Your task to perform on an android device: Open calendar and show me the first week of next month Image 0: 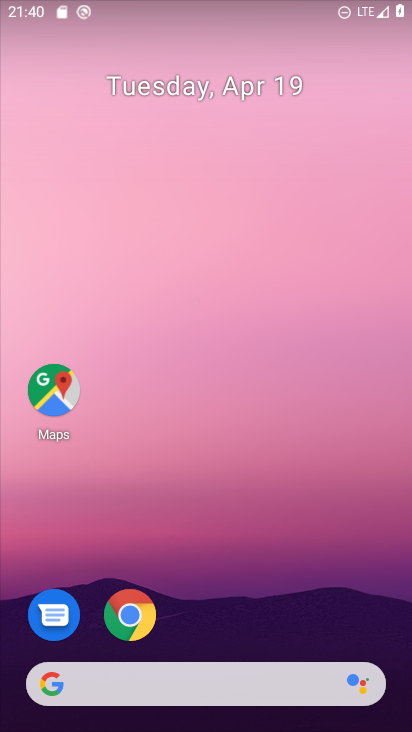
Step 0: click (168, 81)
Your task to perform on an android device: Open calendar and show me the first week of next month Image 1: 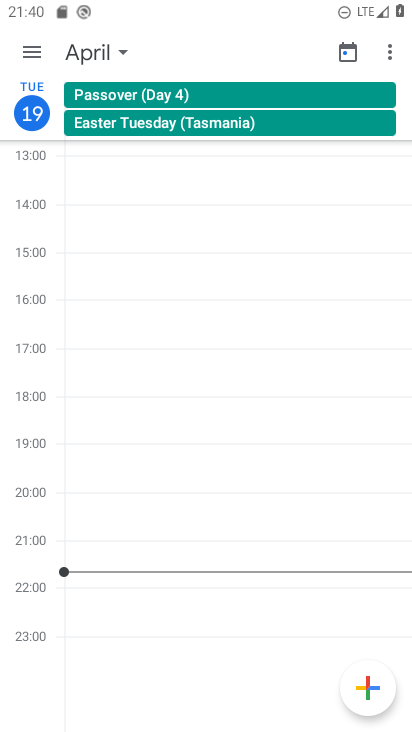
Step 1: click (81, 61)
Your task to perform on an android device: Open calendar and show me the first week of next month Image 2: 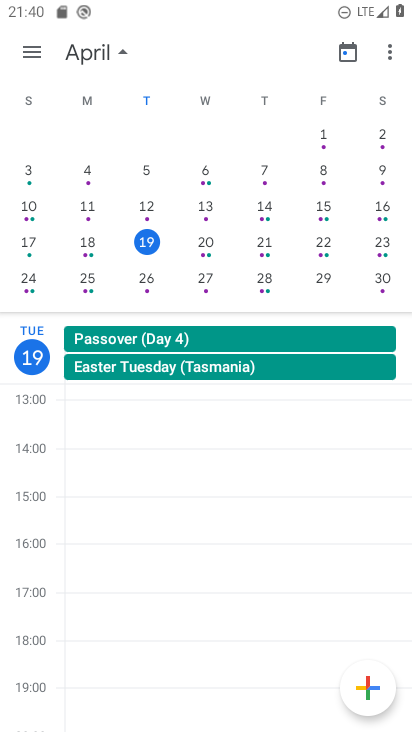
Step 2: drag from (83, 215) to (43, 210)
Your task to perform on an android device: Open calendar and show me the first week of next month Image 3: 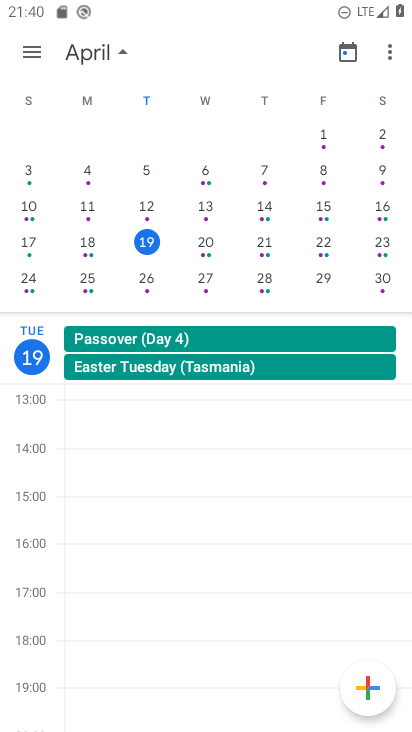
Step 3: drag from (396, 268) to (33, 234)
Your task to perform on an android device: Open calendar and show me the first week of next month Image 4: 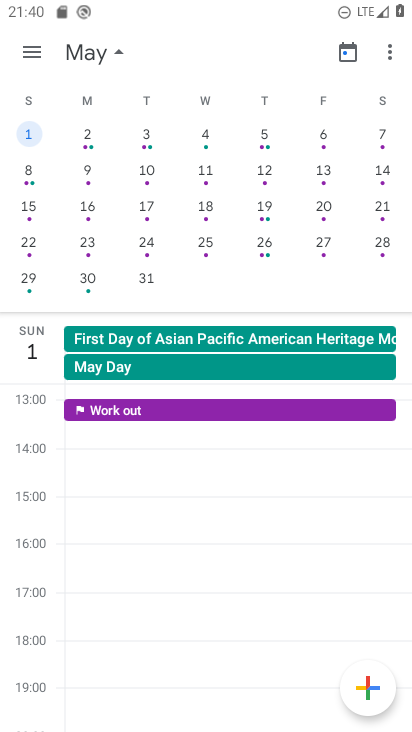
Step 4: click (264, 141)
Your task to perform on an android device: Open calendar and show me the first week of next month Image 5: 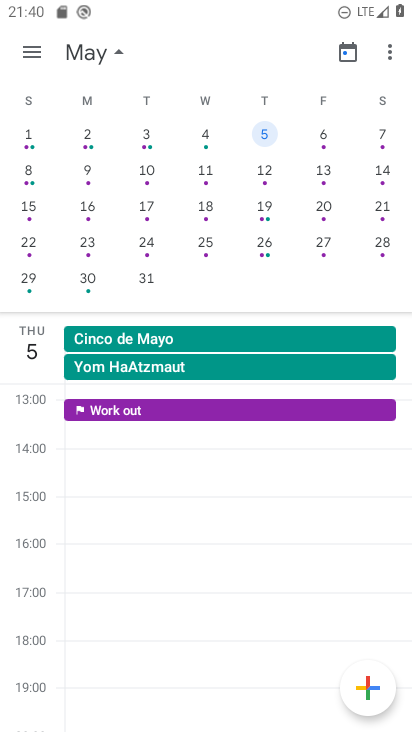
Step 5: task complete